Your task to perform on an android device: open app "Chime – Mobile Banking" (install if not already installed) Image 0: 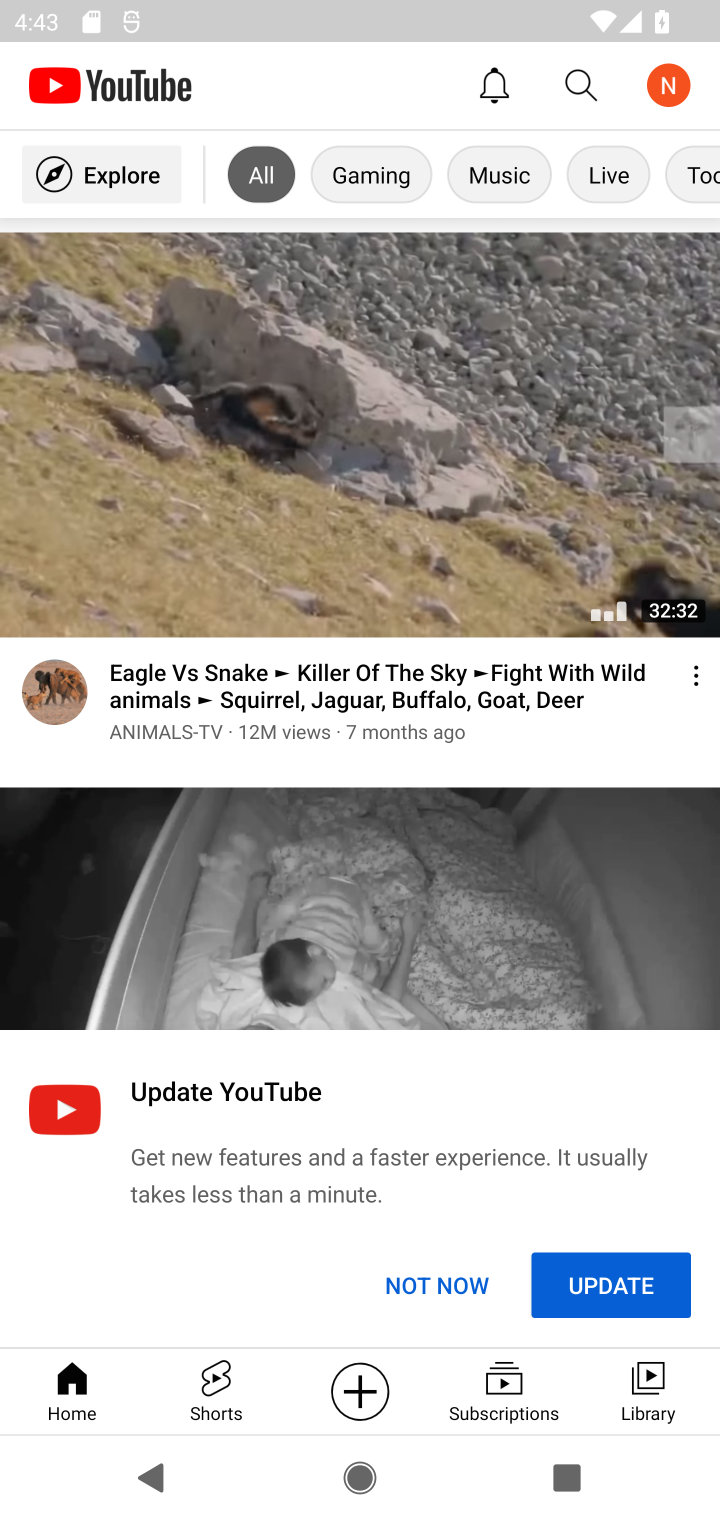
Step 0: press home button
Your task to perform on an android device: open app "Chime – Mobile Banking" (install if not already installed) Image 1: 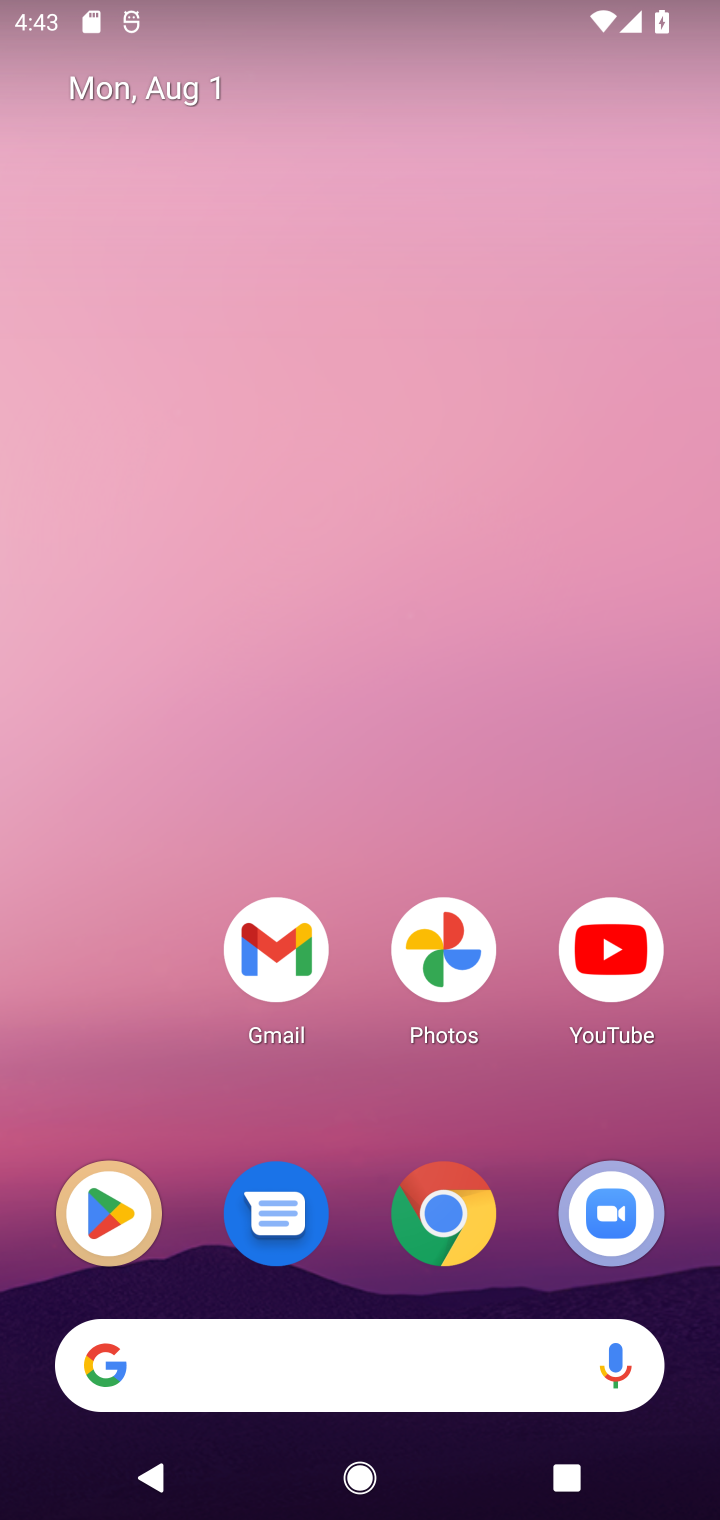
Step 1: drag from (549, 1192) to (565, 193)
Your task to perform on an android device: open app "Chime – Mobile Banking" (install if not already installed) Image 2: 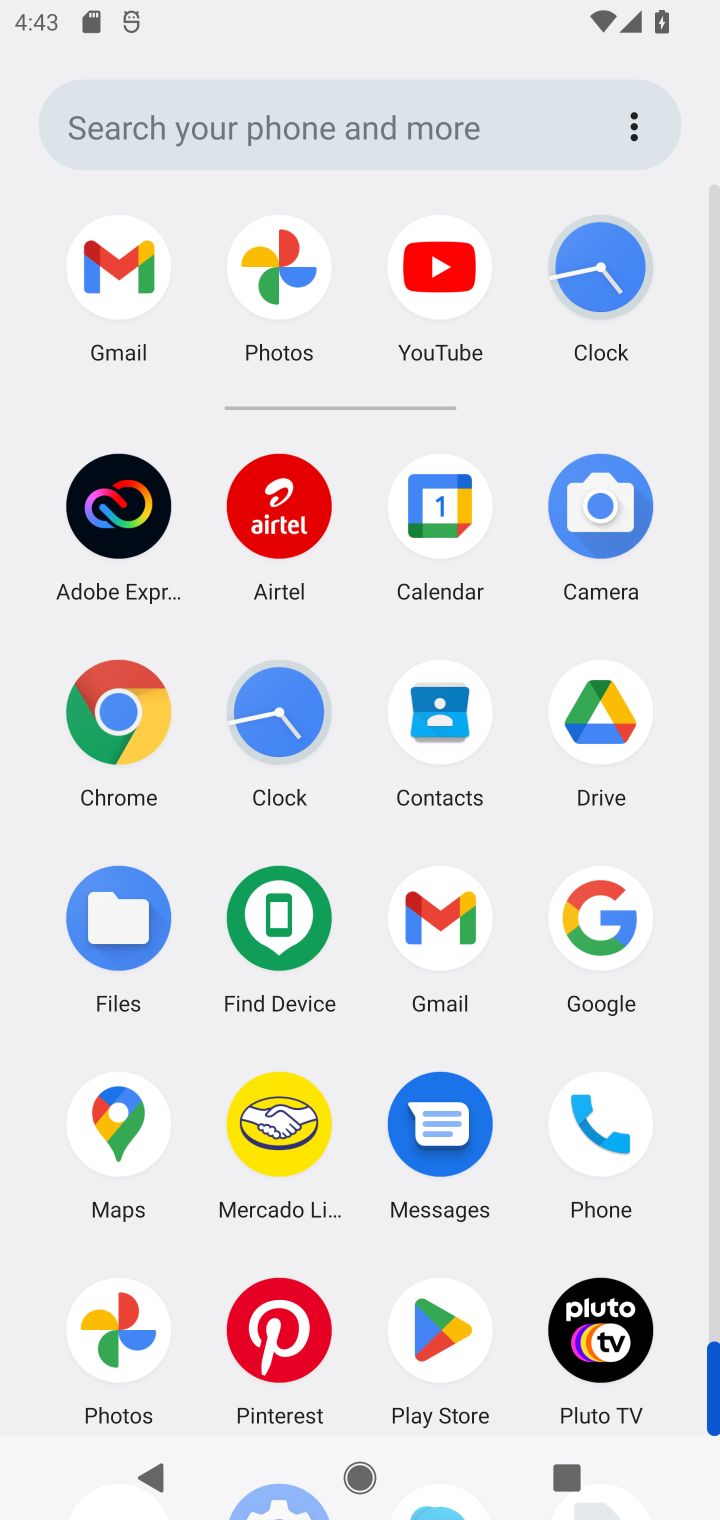
Step 2: click (434, 1343)
Your task to perform on an android device: open app "Chime – Mobile Banking" (install if not already installed) Image 3: 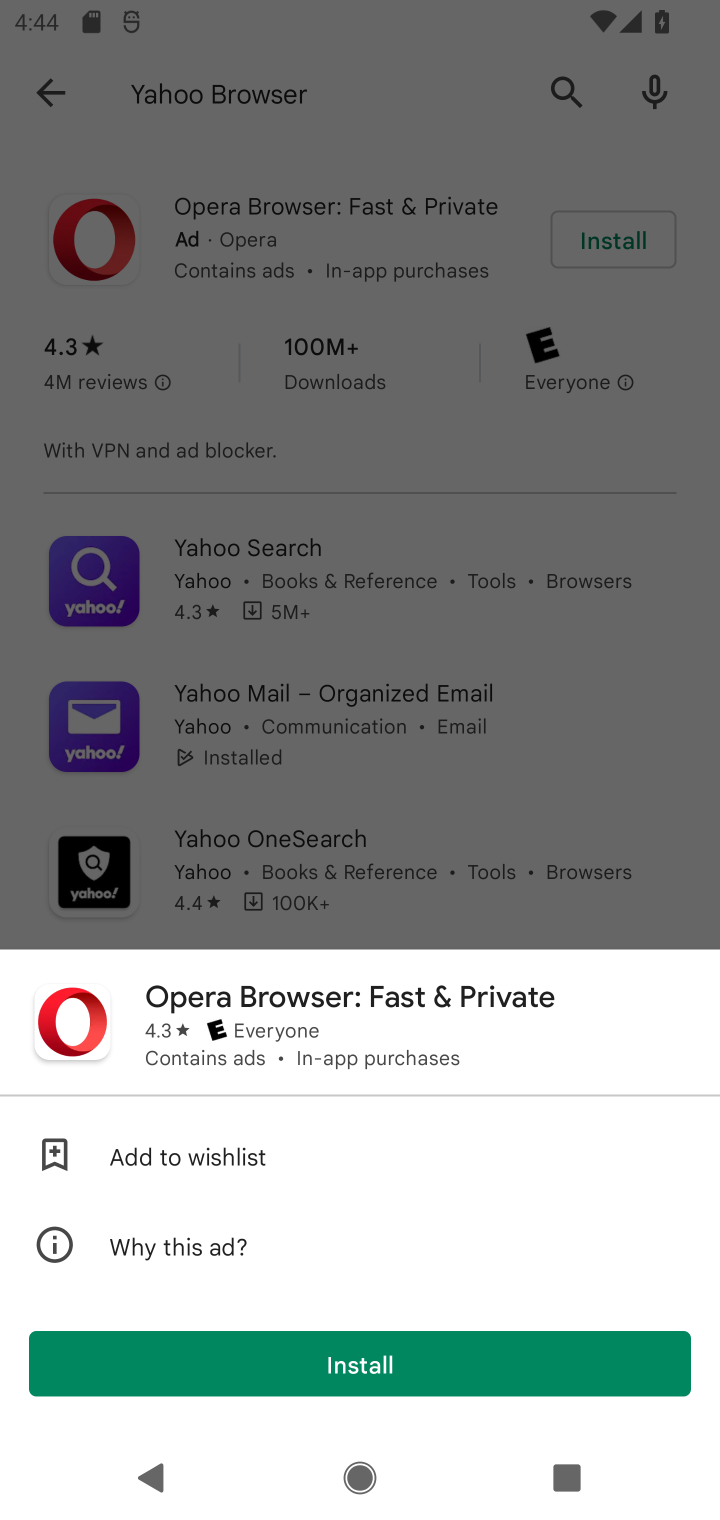
Step 3: click (570, 716)
Your task to perform on an android device: open app "Chime – Mobile Banking" (install if not already installed) Image 4: 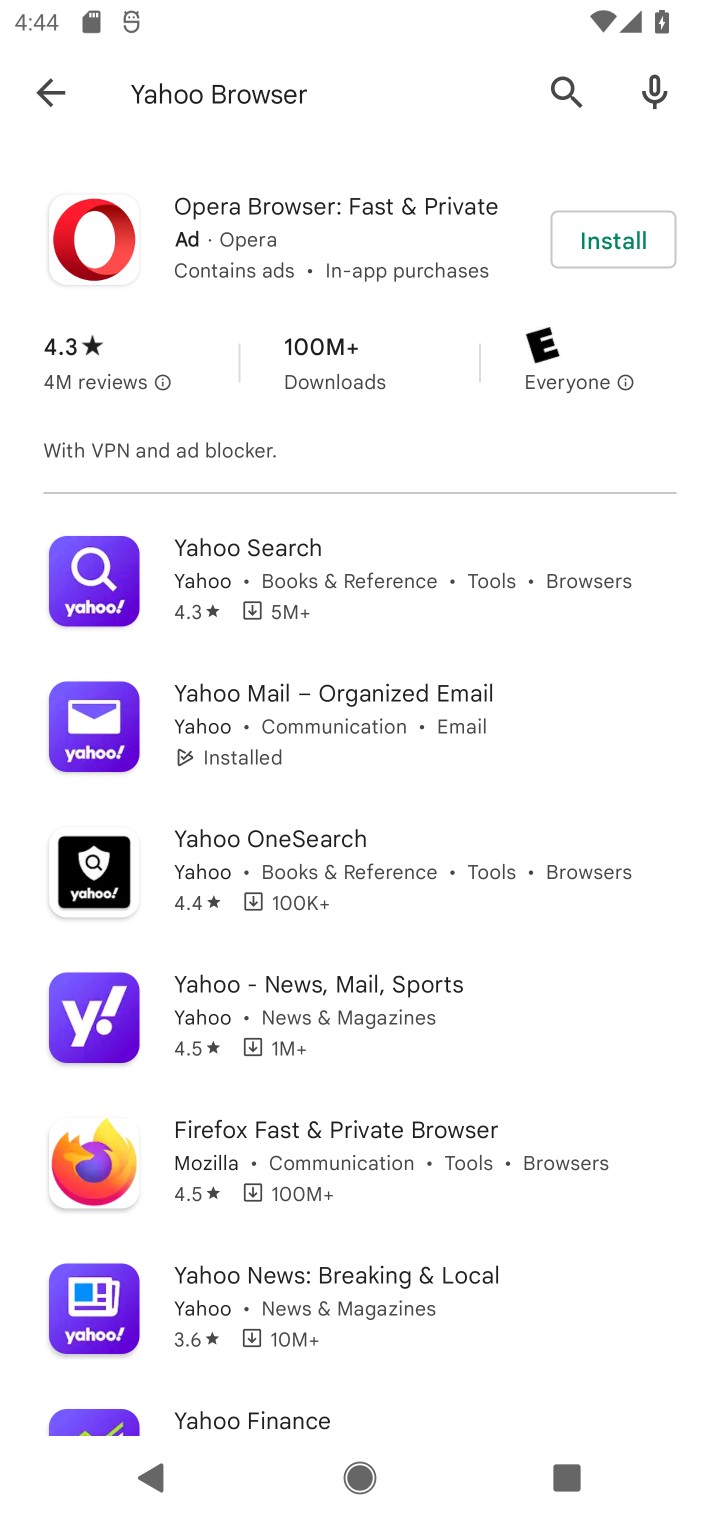
Step 4: click (480, 95)
Your task to perform on an android device: open app "Chime – Mobile Banking" (install if not already installed) Image 5: 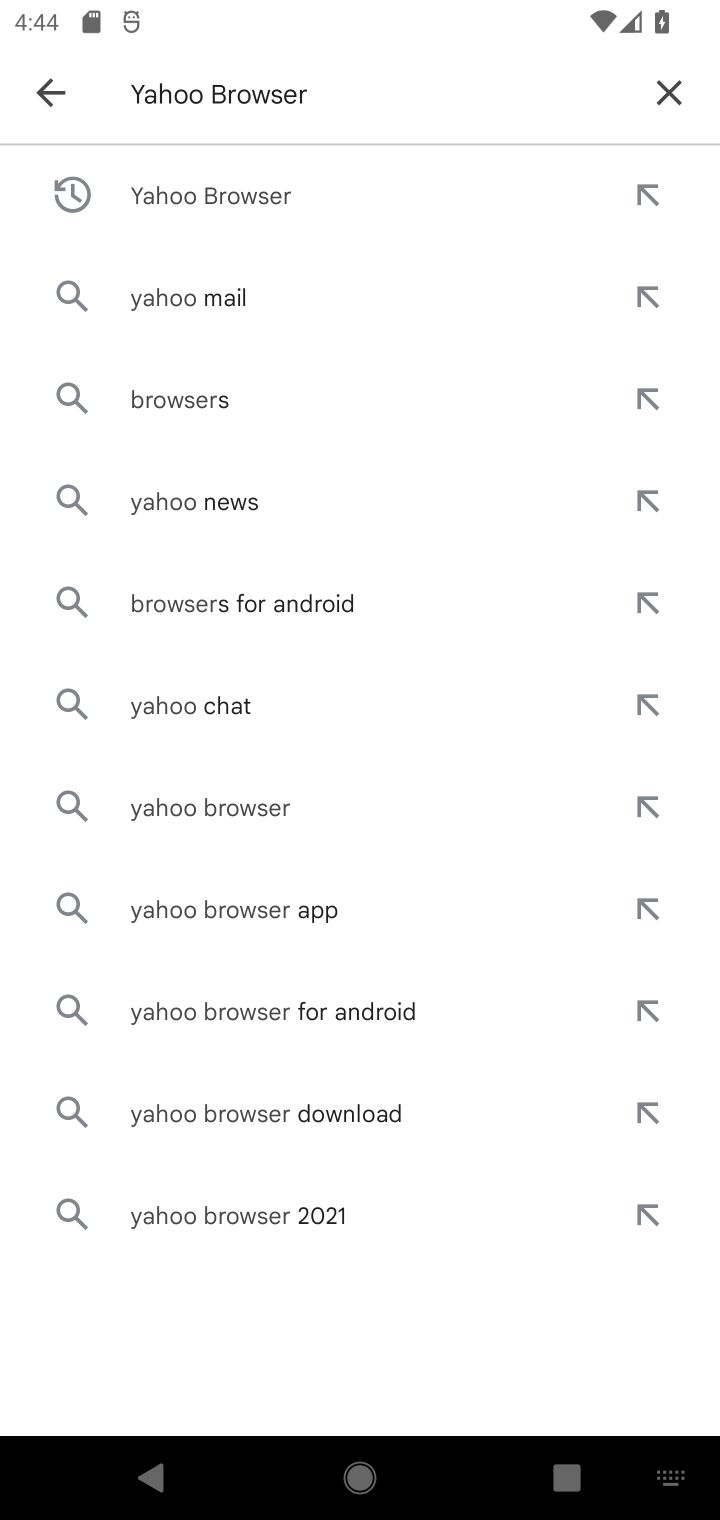
Step 5: click (688, 93)
Your task to perform on an android device: open app "Chime – Mobile Banking" (install if not already installed) Image 6: 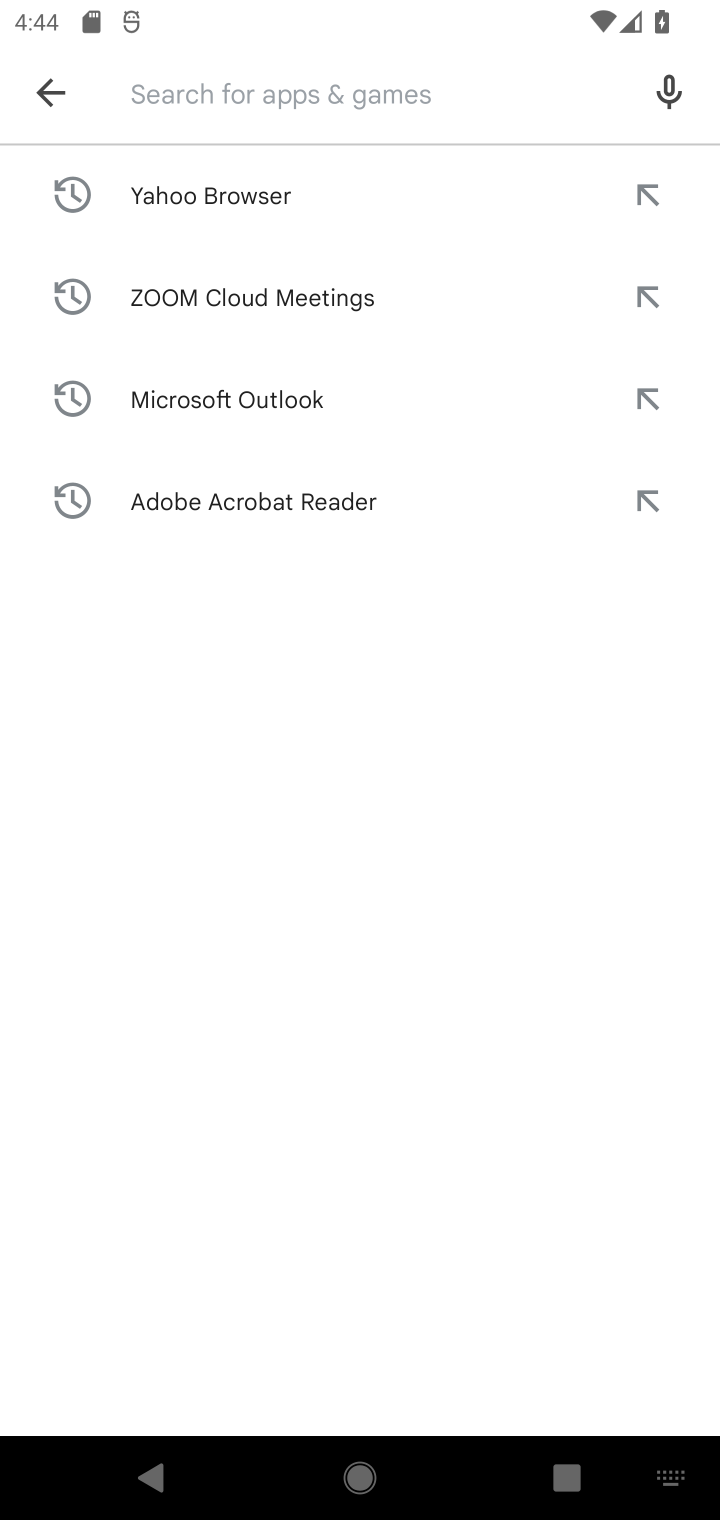
Step 6: type "Chime - Mobile Banking"
Your task to perform on an android device: open app "Chime – Mobile Banking" (install if not already installed) Image 7: 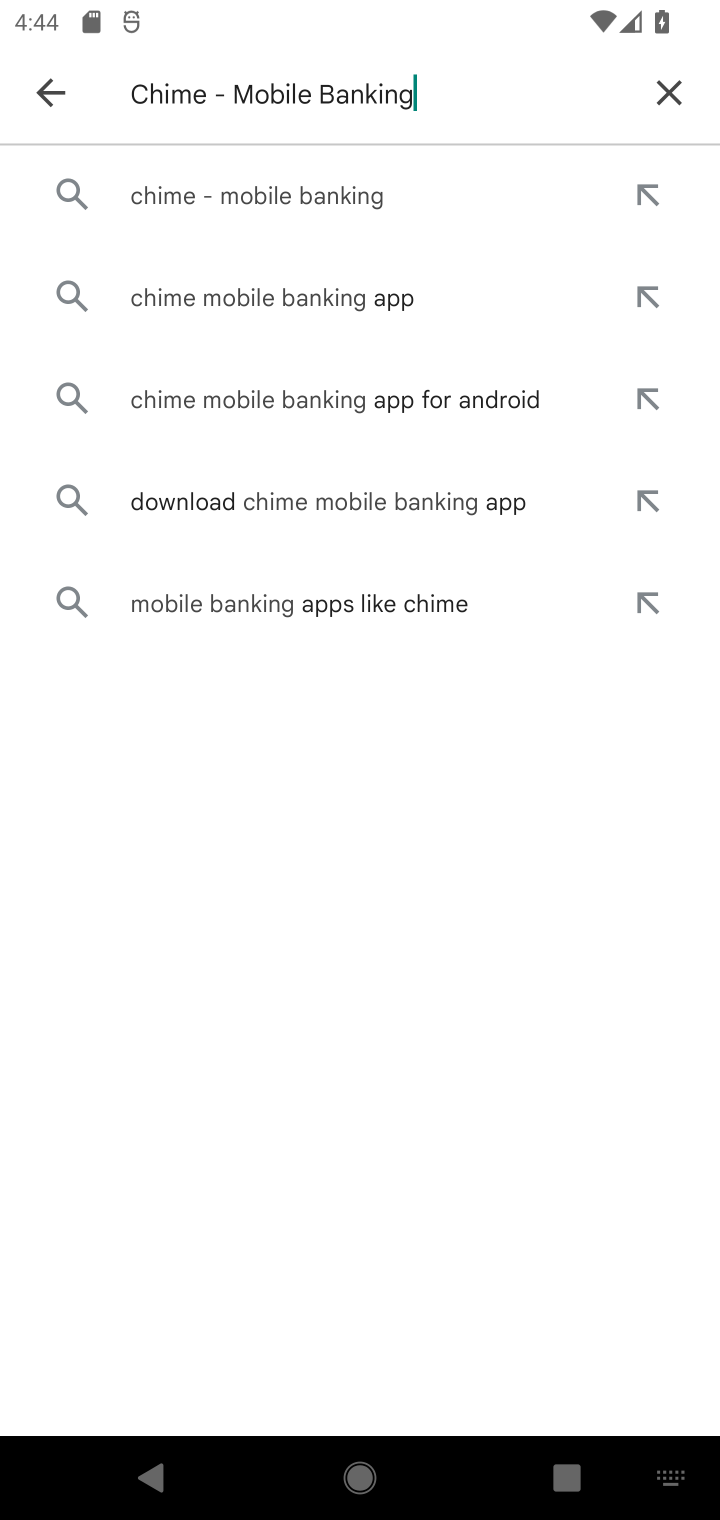
Step 7: press enter
Your task to perform on an android device: open app "Chime – Mobile Banking" (install if not already installed) Image 8: 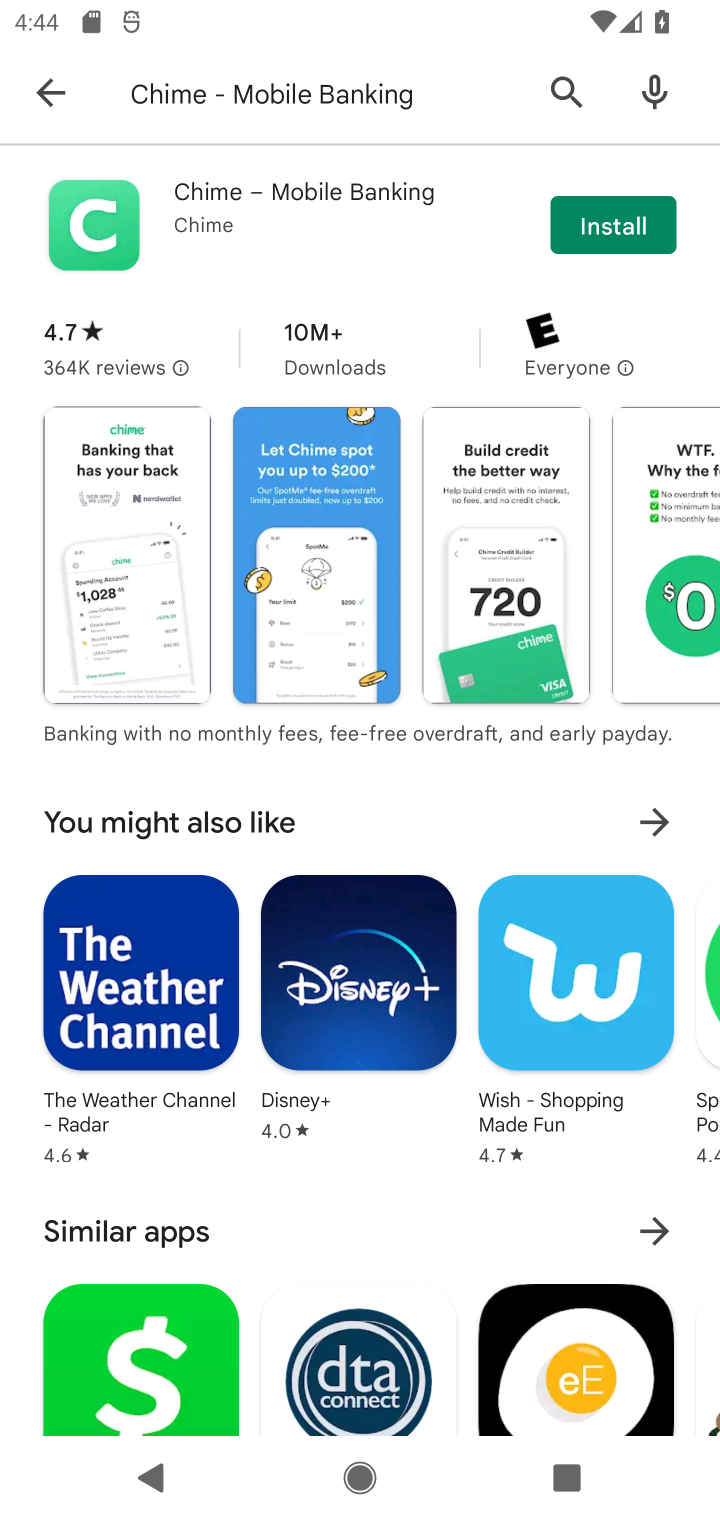
Step 8: click (621, 223)
Your task to perform on an android device: open app "Chime – Mobile Banking" (install if not already installed) Image 9: 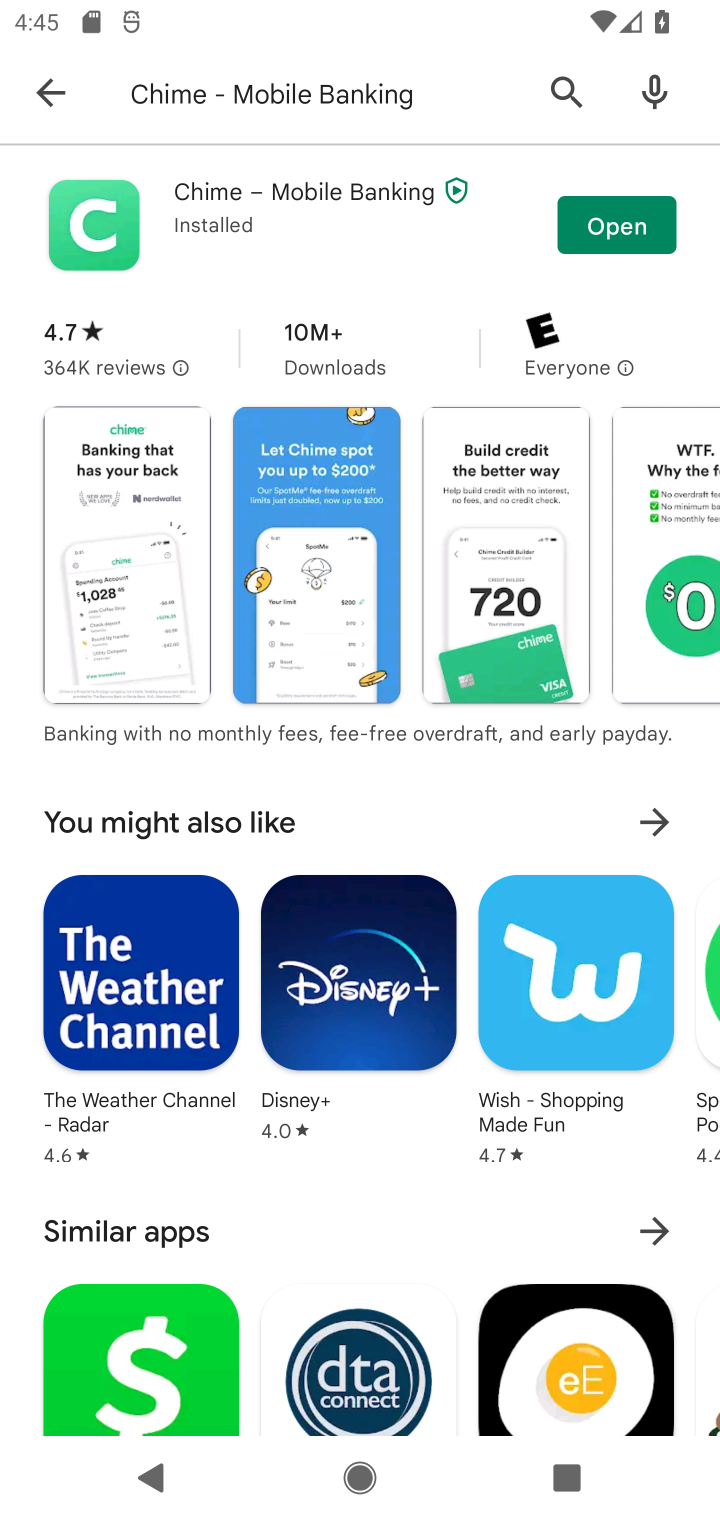
Step 9: click (621, 221)
Your task to perform on an android device: open app "Chime – Mobile Banking" (install if not already installed) Image 10: 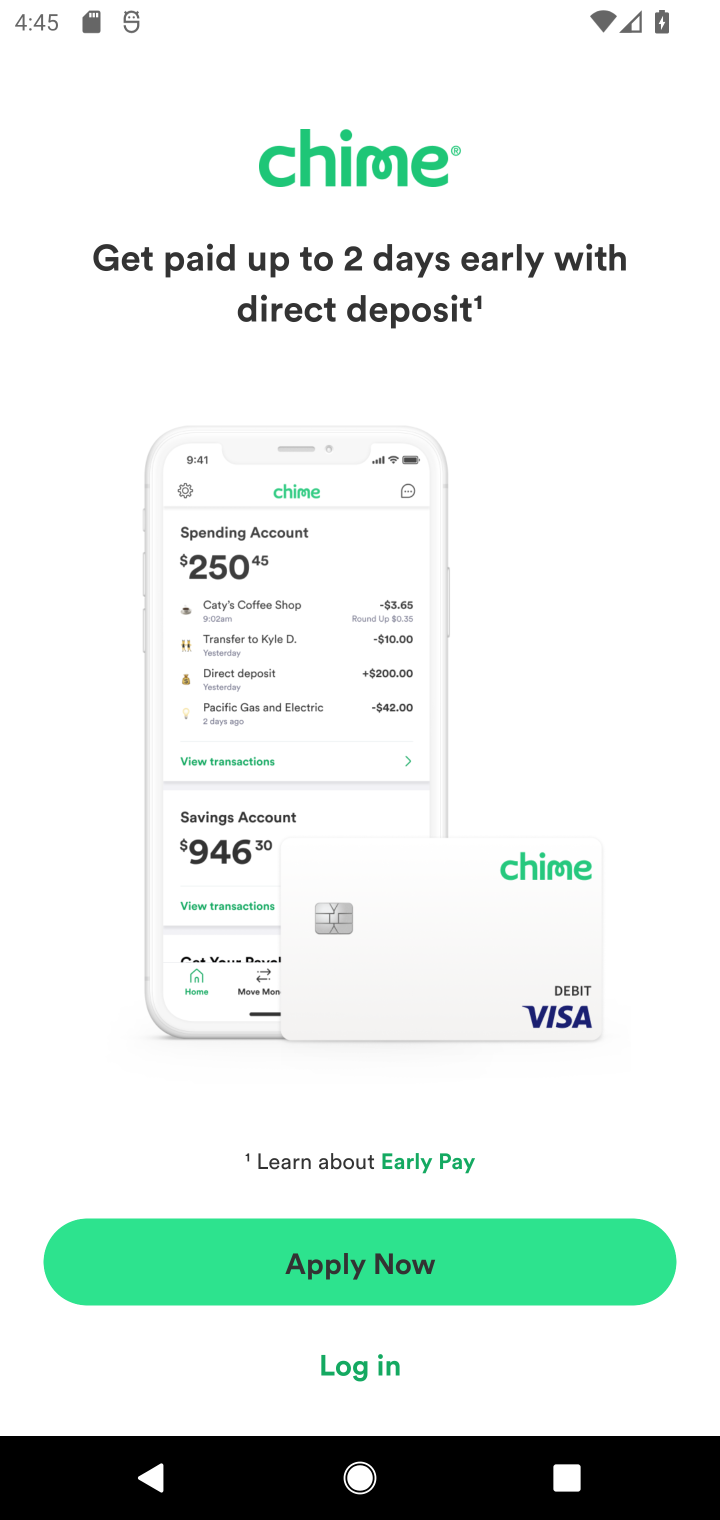
Step 10: task complete